Your task to perform on an android device: Open battery settings Image 0: 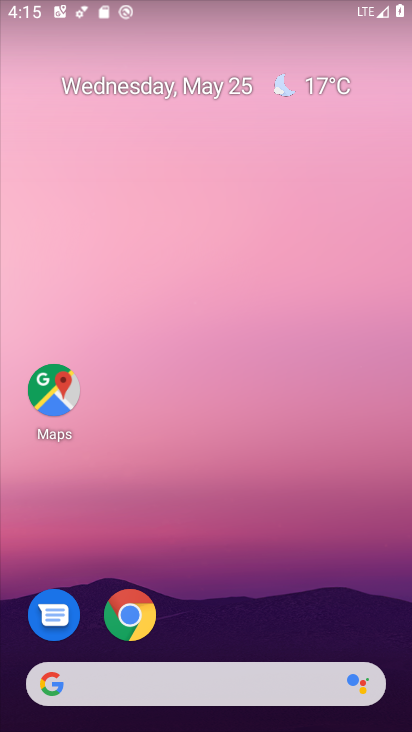
Step 0: click (208, 46)
Your task to perform on an android device: Open battery settings Image 1: 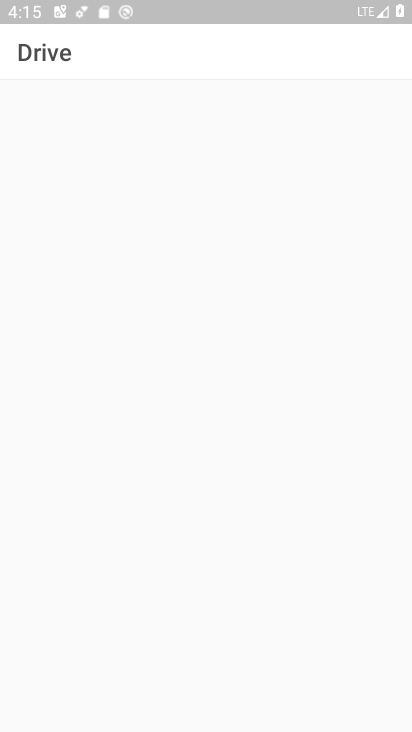
Step 1: press home button
Your task to perform on an android device: Open battery settings Image 2: 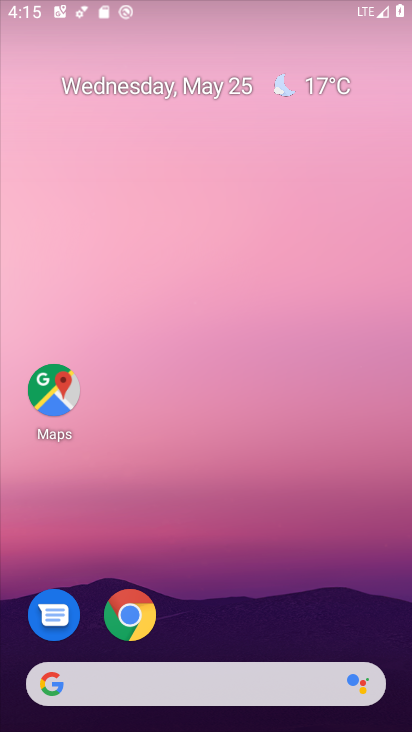
Step 2: drag from (251, 293) to (196, 78)
Your task to perform on an android device: Open battery settings Image 3: 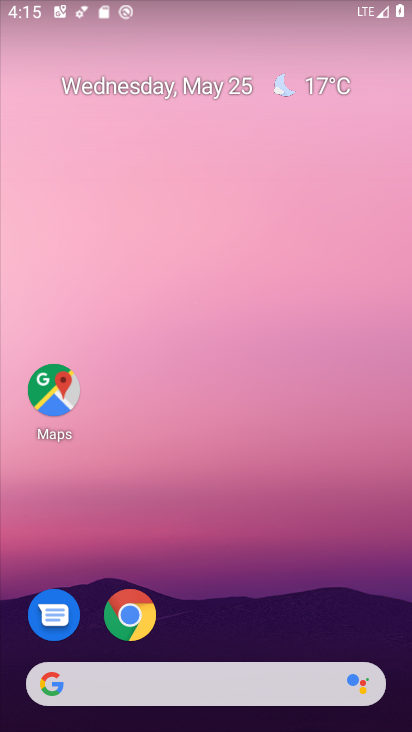
Step 3: drag from (266, 451) to (169, 9)
Your task to perform on an android device: Open battery settings Image 4: 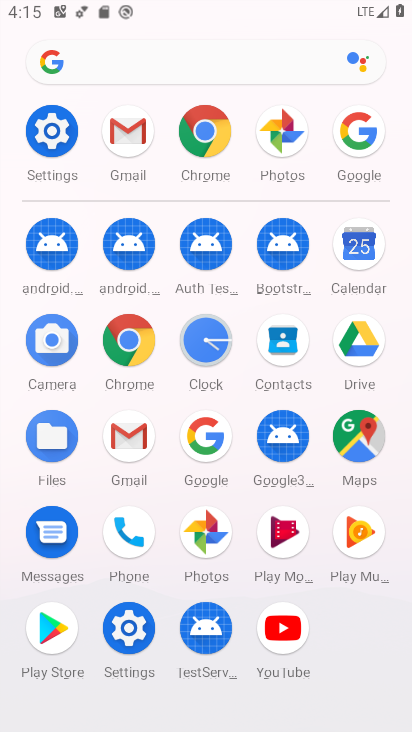
Step 4: click (52, 122)
Your task to perform on an android device: Open battery settings Image 5: 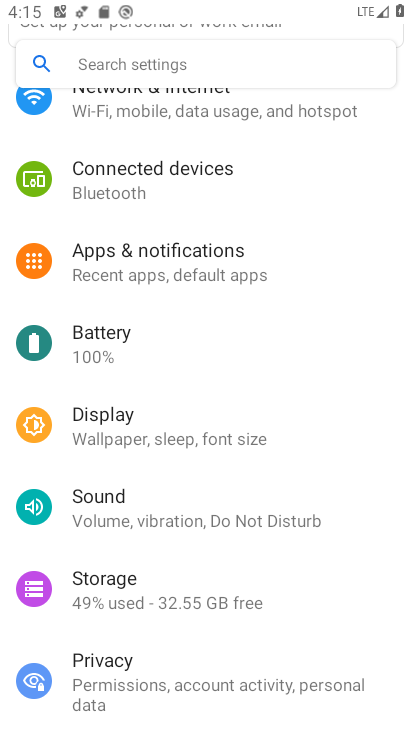
Step 5: click (179, 344)
Your task to perform on an android device: Open battery settings Image 6: 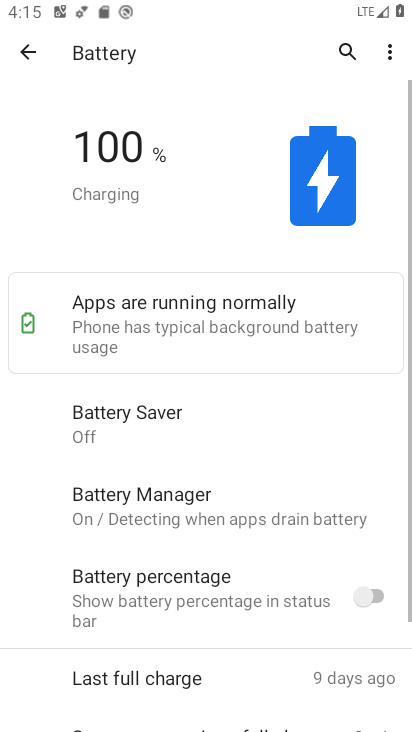
Step 6: task complete